Your task to perform on an android device: turn pop-ups off in chrome Image 0: 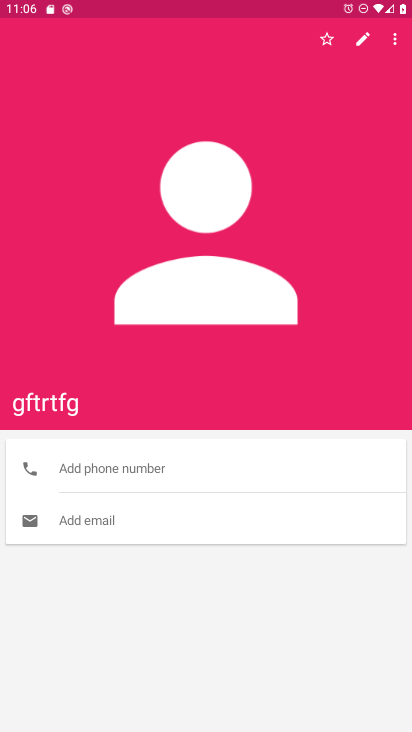
Step 0: press home button
Your task to perform on an android device: turn pop-ups off in chrome Image 1: 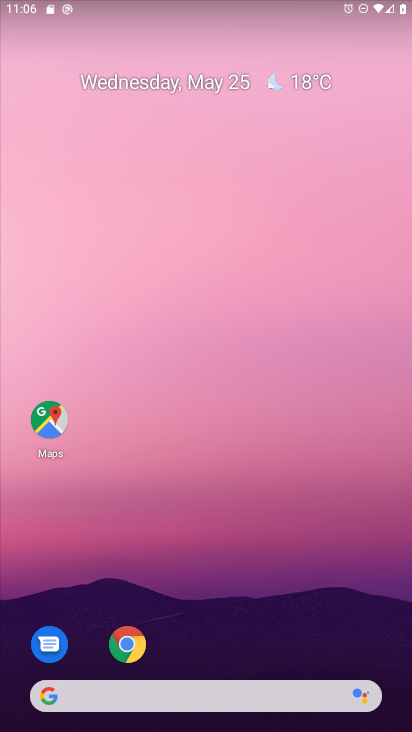
Step 1: click (124, 639)
Your task to perform on an android device: turn pop-ups off in chrome Image 2: 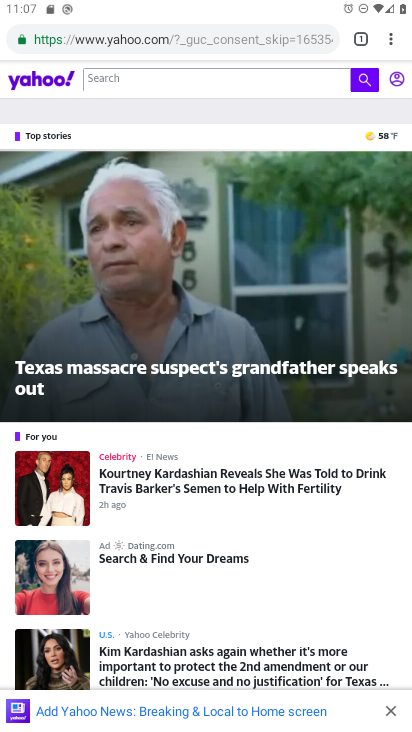
Step 2: click (388, 35)
Your task to perform on an android device: turn pop-ups off in chrome Image 3: 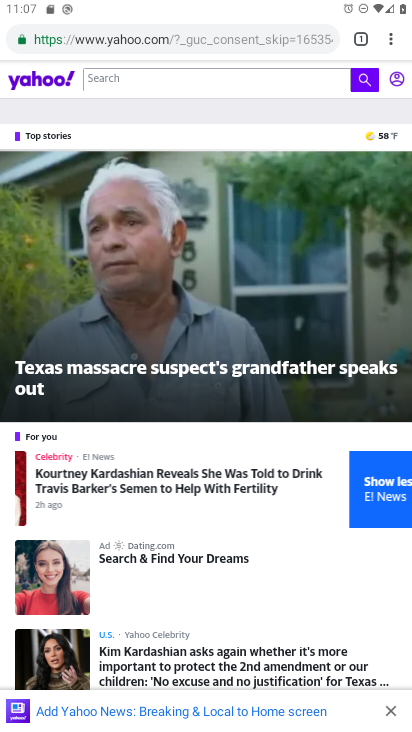
Step 3: click (389, 31)
Your task to perform on an android device: turn pop-ups off in chrome Image 4: 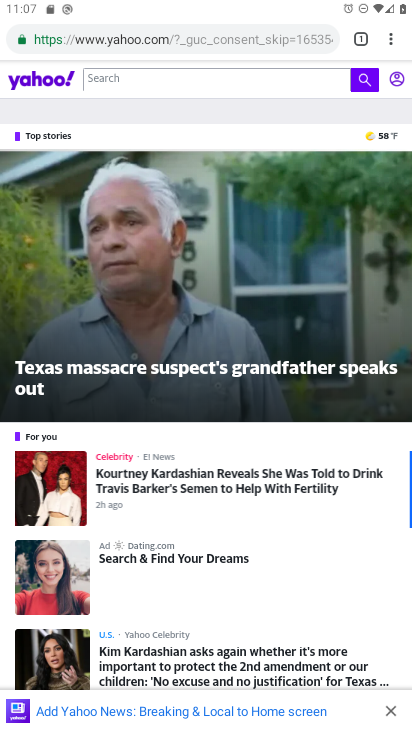
Step 4: click (389, 32)
Your task to perform on an android device: turn pop-ups off in chrome Image 5: 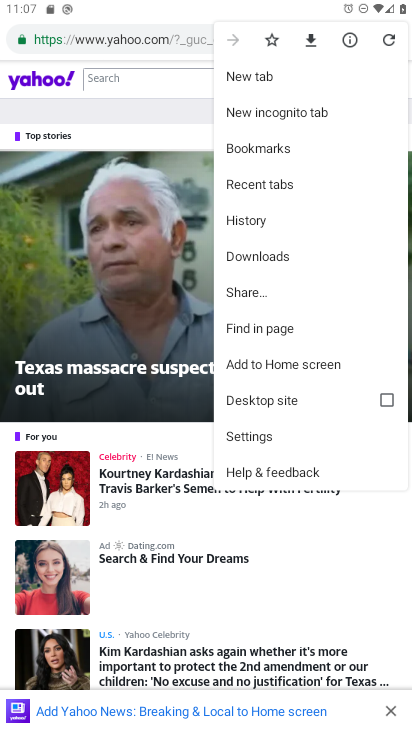
Step 5: click (288, 433)
Your task to perform on an android device: turn pop-ups off in chrome Image 6: 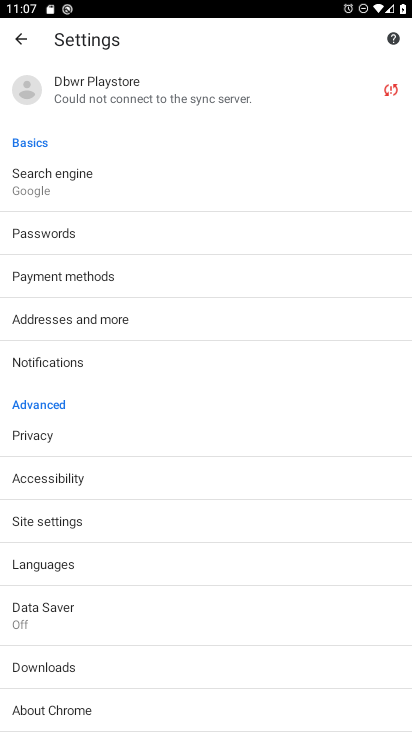
Step 6: click (97, 522)
Your task to perform on an android device: turn pop-ups off in chrome Image 7: 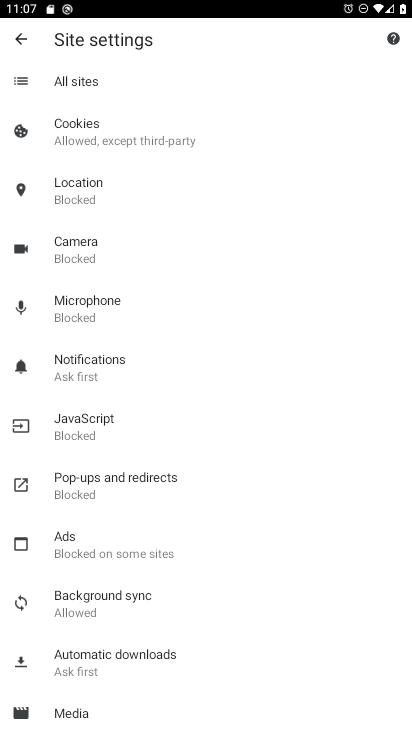
Step 7: click (110, 490)
Your task to perform on an android device: turn pop-ups off in chrome Image 8: 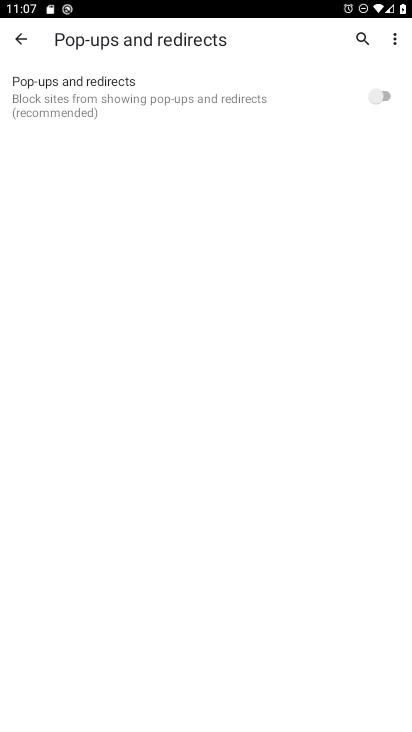
Step 8: task complete